Your task to perform on an android device: Search for pizza restaurants on Maps Image 0: 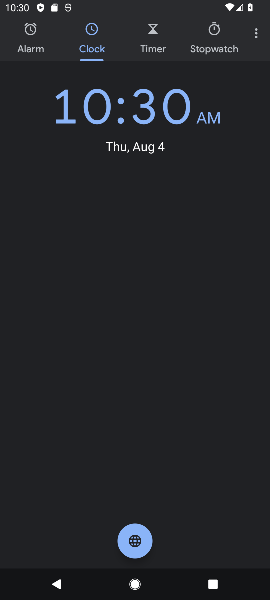
Step 0: press home button
Your task to perform on an android device: Search for pizza restaurants on Maps Image 1: 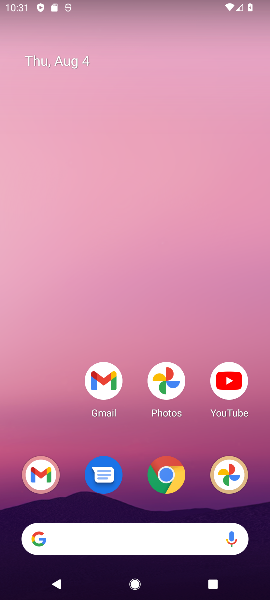
Step 1: drag from (185, 454) to (181, 82)
Your task to perform on an android device: Search for pizza restaurants on Maps Image 2: 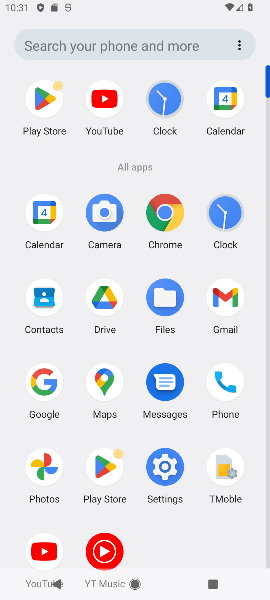
Step 2: click (105, 380)
Your task to perform on an android device: Search for pizza restaurants on Maps Image 3: 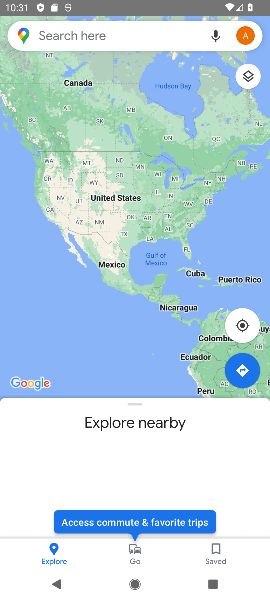
Step 3: click (111, 44)
Your task to perform on an android device: Search for pizza restaurants on Maps Image 4: 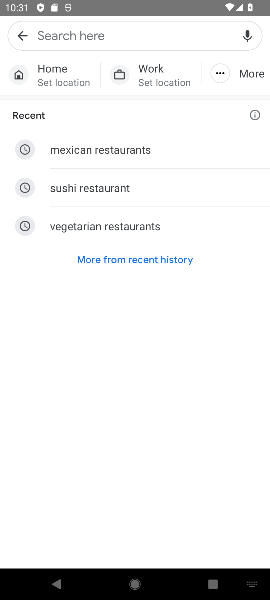
Step 4: type "pizza restaurant"
Your task to perform on an android device: Search for pizza restaurants on Maps Image 5: 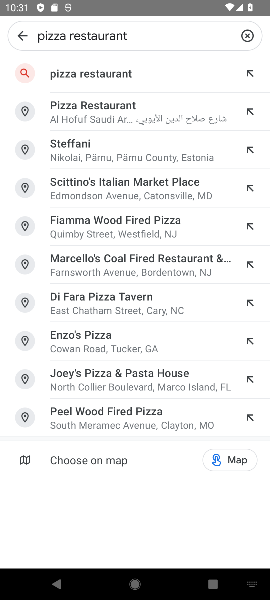
Step 5: click (77, 73)
Your task to perform on an android device: Search for pizza restaurants on Maps Image 6: 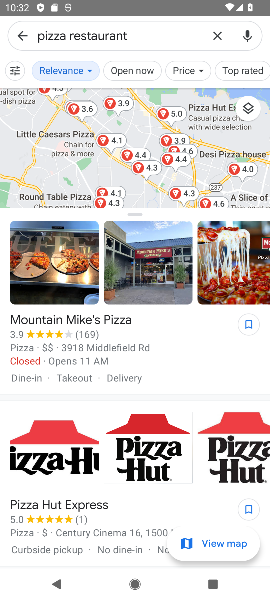
Step 6: task complete